Your task to perform on an android device: Go to calendar. Show me events next week Image 0: 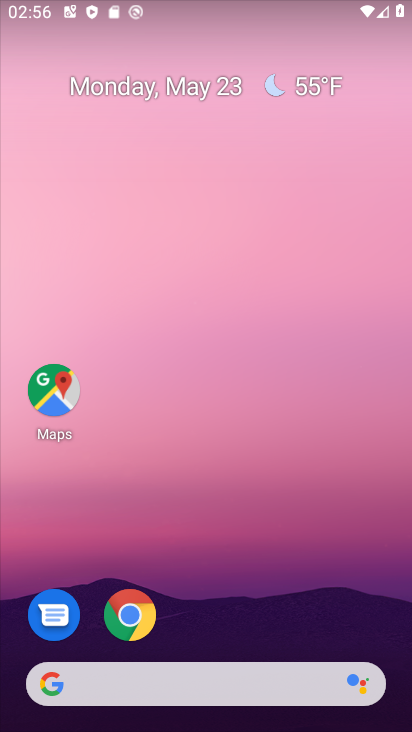
Step 0: drag from (386, 630) to (389, 309)
Your task to perform on an android device: Go to calendar. Show me events next week Image 1: 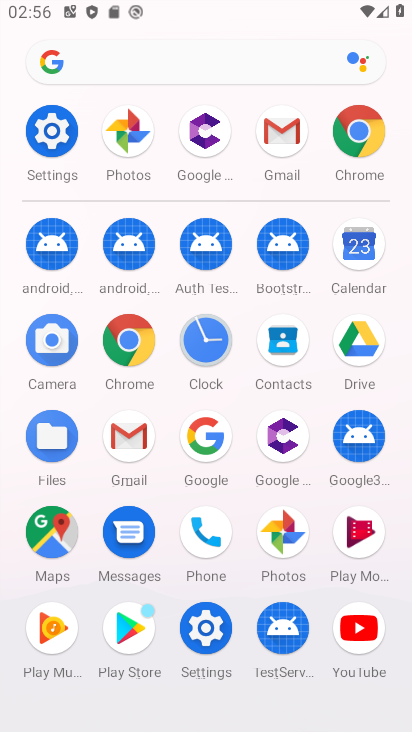
Step 1: click (381, 255)
Your task to perform on an android device: Go to calendar. Show me events next week Image 2: 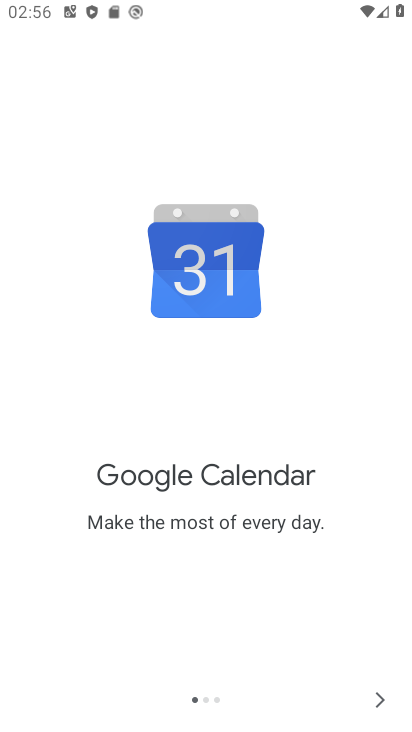
Step 2: click (377, 705)
Your task to perform on an android device: Go to calendar. Show me events next week Image 3: 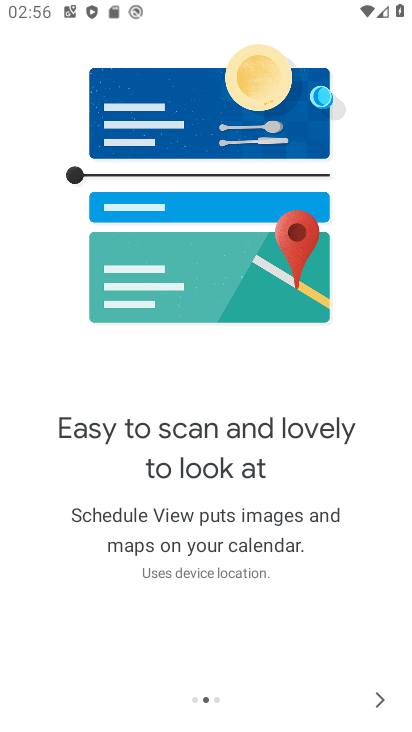
Step 3: click (377, 705)
Your task to perform on an android device: Go to calendar. Show me events next week Image 4: 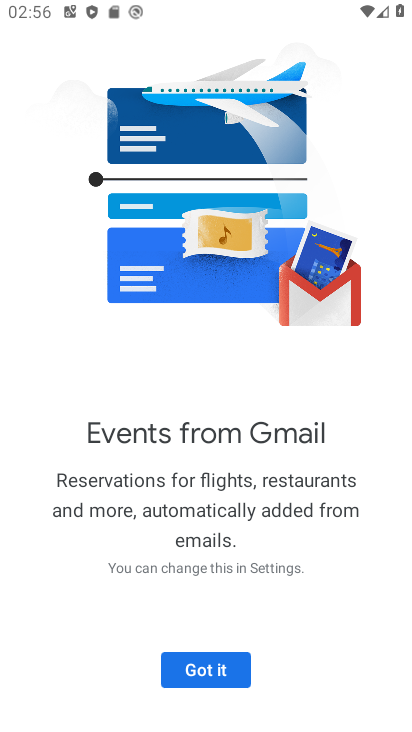
Step 4: click (206, 678)
Your task to perform on an android device: Go to calendar. Show me events next week Image 5: 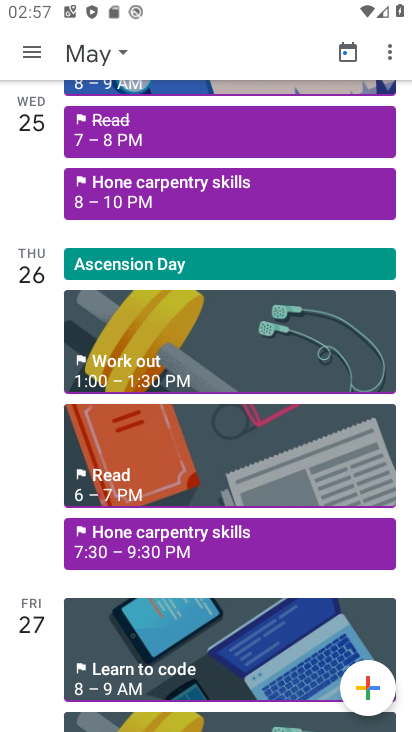
Step 5: click (120, 53)
Your task to perform on an android device: Go to calendar. Show me events next week Image 6: 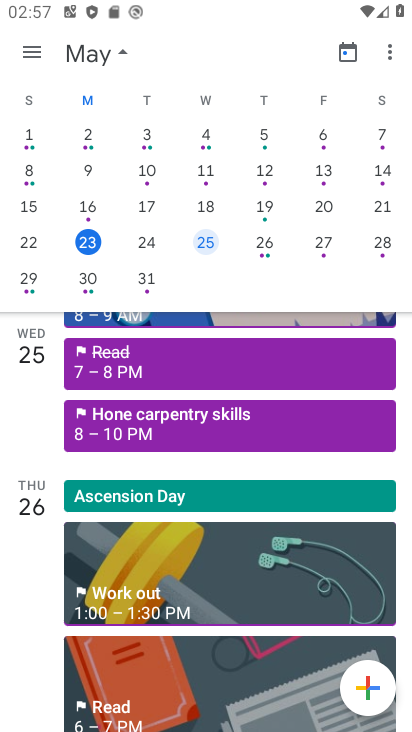
Step 6: click (83, 278)
Your task to perform on an android device: Go to calendar. Show me events next week Image 7: 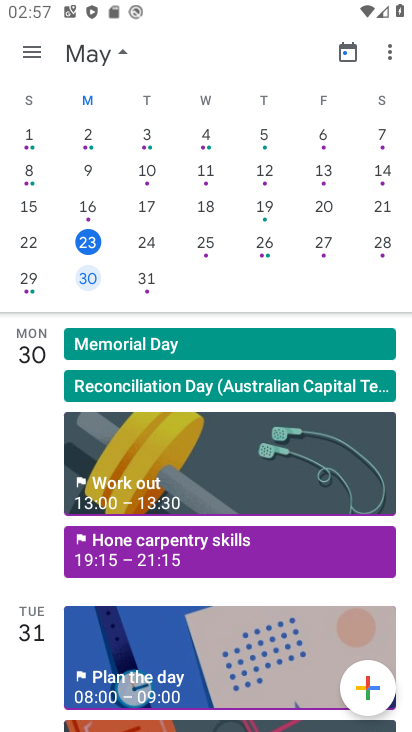
Step 7: click (189, 463)
Your task to perform on an android device: Go to calendar. Show me events next week Image 8: 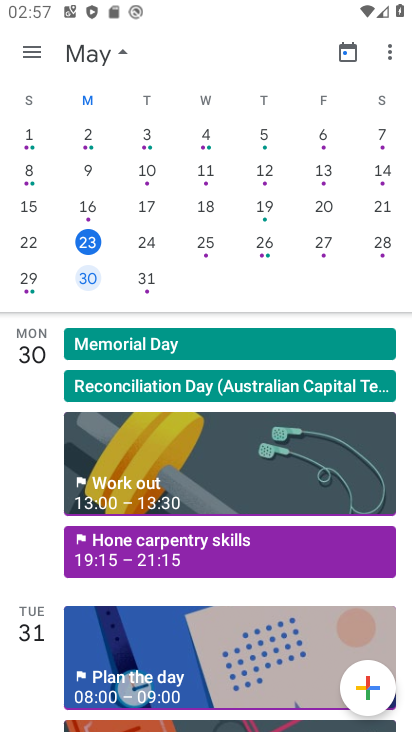
Step 8: click (189, 463)
Your task to perform on an android device: Go to calendar. Show me events next week Image 9: 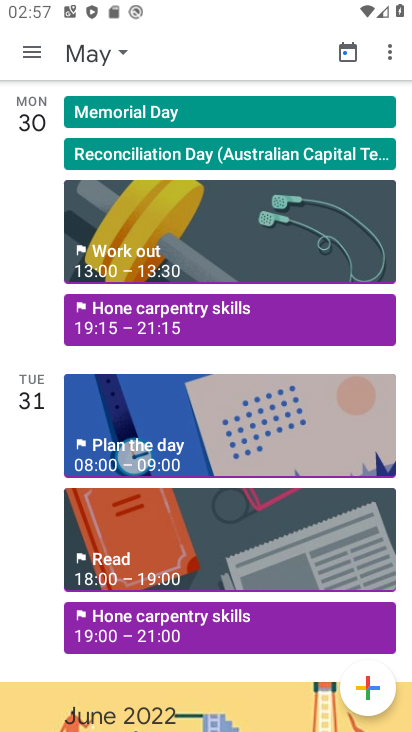
Step 9: task complete